Your task to perform on an android device: Is it going to rain this weekend? Image 0: 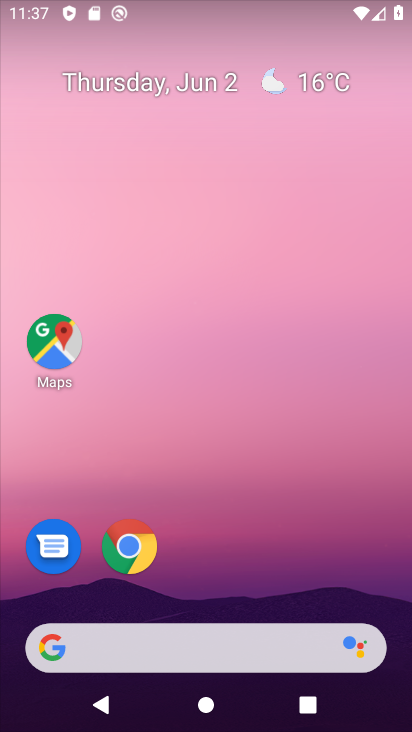
Step 0: press home button
Your task to perform on an android device: Is it going to rain this weekend? Image 1: 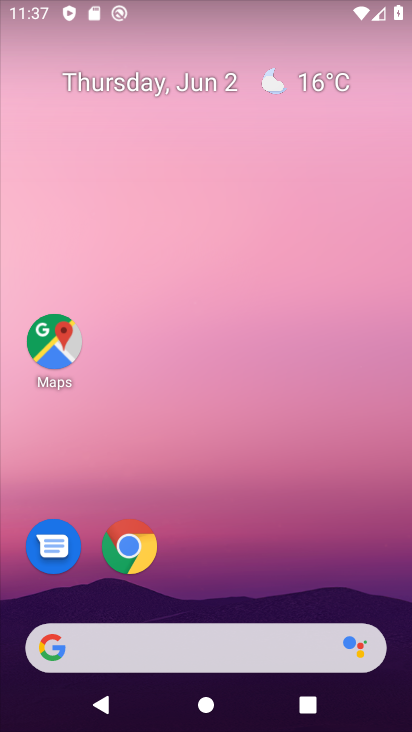
Step 1: drag from (351, 583) to (372, 214)
Your task to perform on an android device: Is it going to rain this weekend? Image 2: 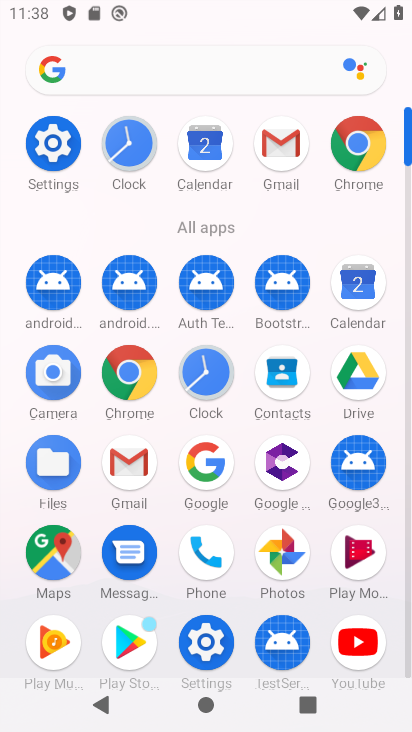
Step 2: click (114, 370)
Your task to perform on an android device: Is it going to rain this weekend? Image 3: 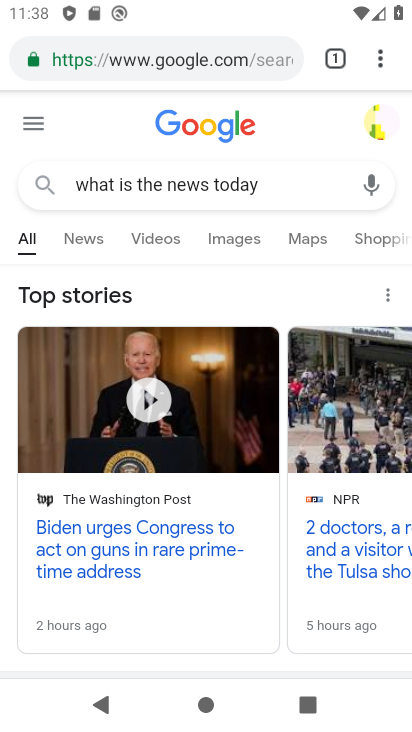
Step 3: click (223, 61)
Your task to perform on an android device: Is it going to rain this weekend? Image 4: 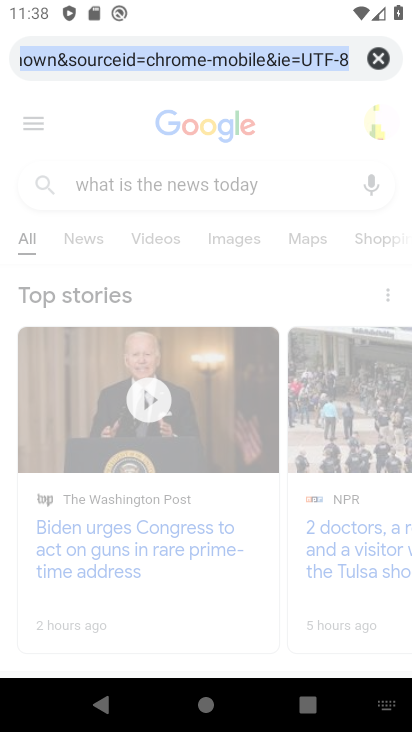
Step 4: click (371, 56)
Your task to perform on an android device: Is it going to rain this weekend? Image 5: 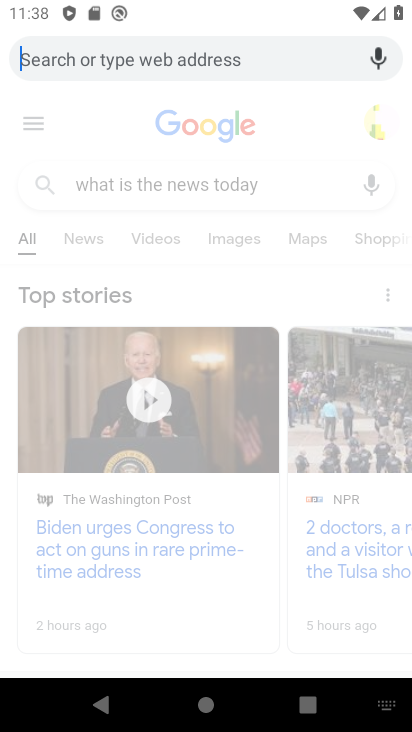
Step 5: click (193, 49)
Your task to perform on an android device: Is it going to rain this weekend? Image 6: 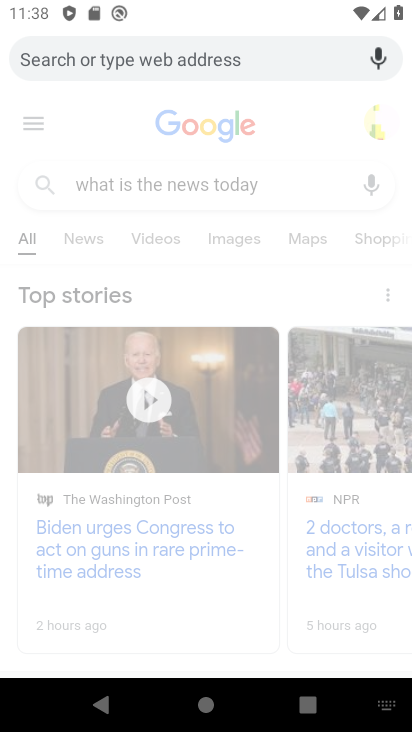
Step 6: type "is it going to rain this weekend "
Your task to perform on an android device: Is it going to rain this weekend? Image 7: 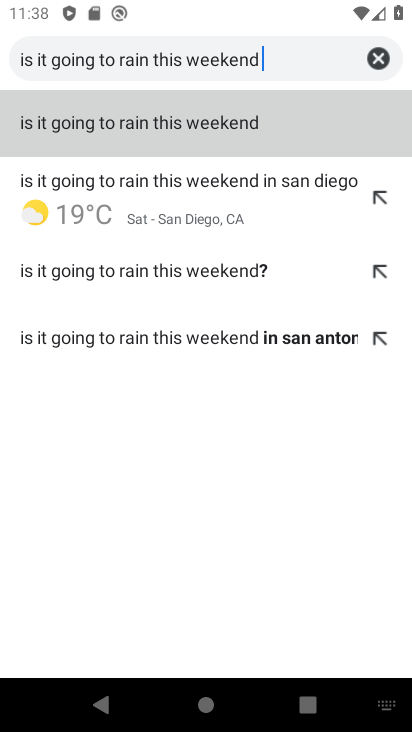
Step 7: click (186, 131)
Your task to perform on an android device: Is it going to rain this weekend? Image 8: 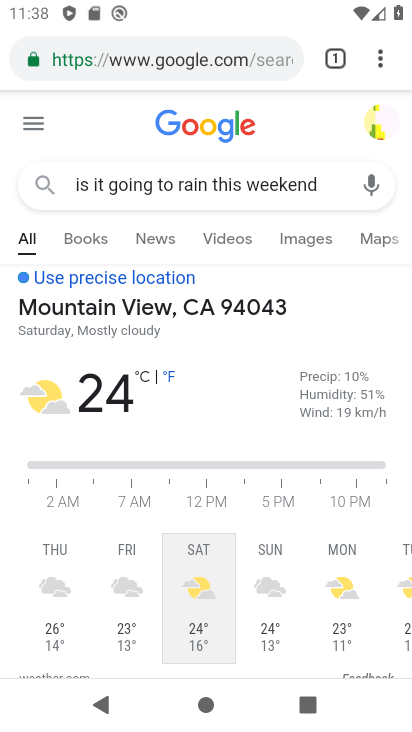
Step 8: task complete